Your task to perform on an android device: delete the emails in spam in the gmail app Image 0: 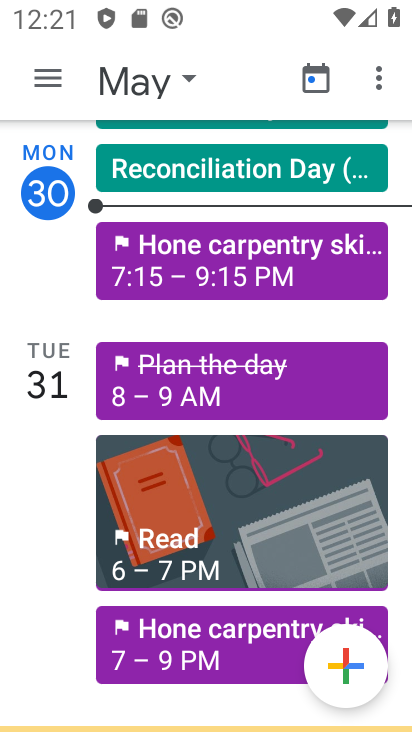
Step 0: press back button
Your task to perform on an android device: delete the emails in spam in the gmail app Image 1: 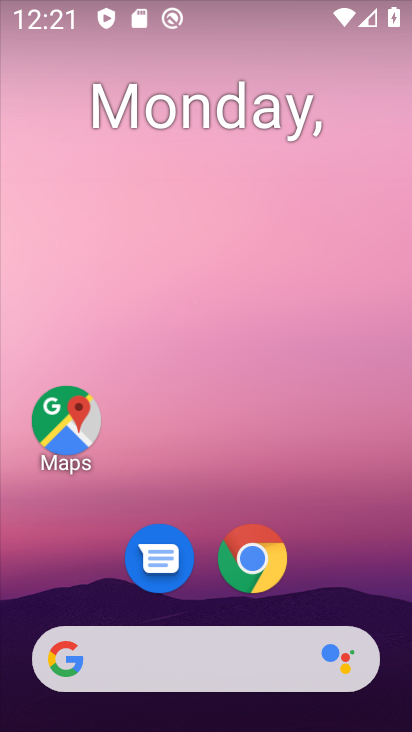
Step 1: drag from (316, 564) to (242, 24)
Your task to perform on an android device: delete the emails in spam in the gmail app Image 2: 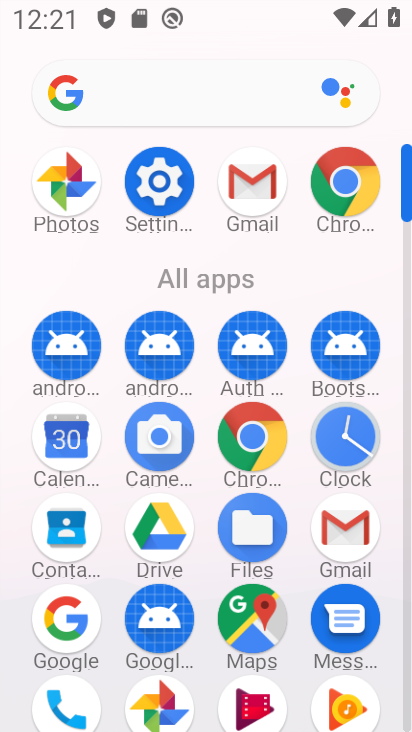
Step 2: drag from (3, 589) to (6, 281)
Your task to perform on an android device: delete the emails in spam in the gmail app Image 3: 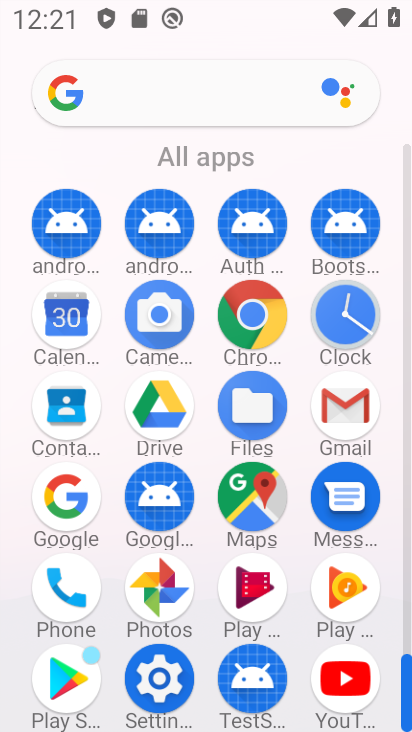
Step 3: click (348, 394)
Your task to perform on an android device: delete the emails in spam in the gmail app Image 4: 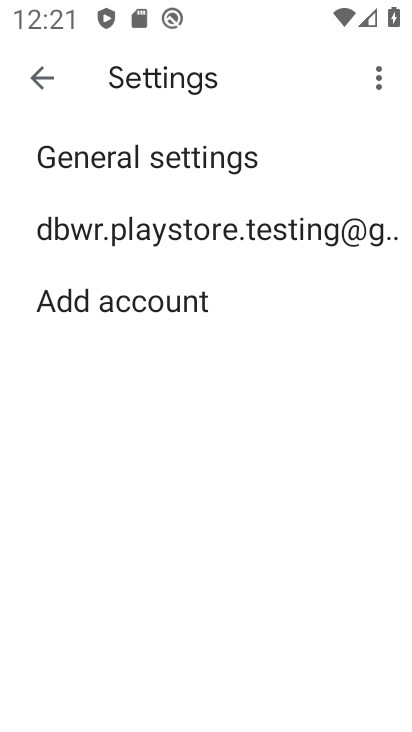
Step 4: click (42, 74)
Your task to perform on an android device: delete the emails in spam in the gmail app Image 5: 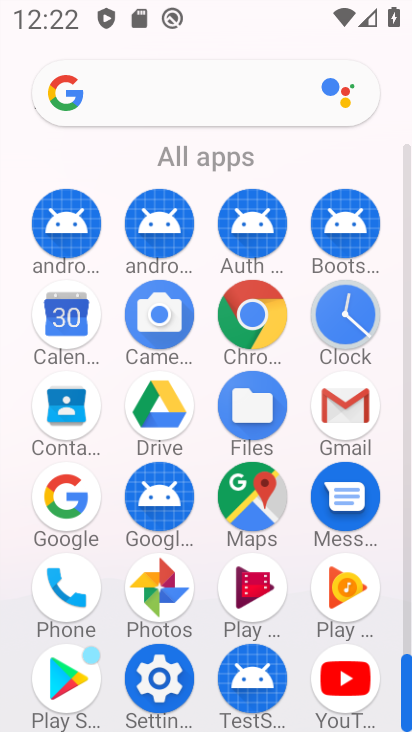
Step 5: click (342, 395)
Your task to perform on an android device: delete the emails in spam in the gmail app Image 6: 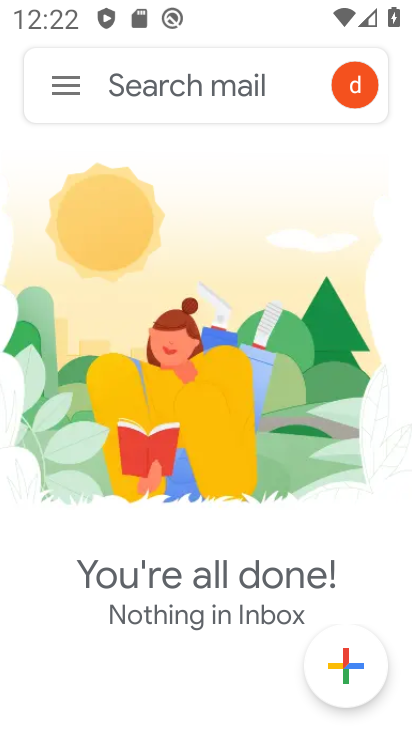
Step 6: click (64, 91)
Your task to perform on an android device: delete the emails in spam in the gmail app Image 7: 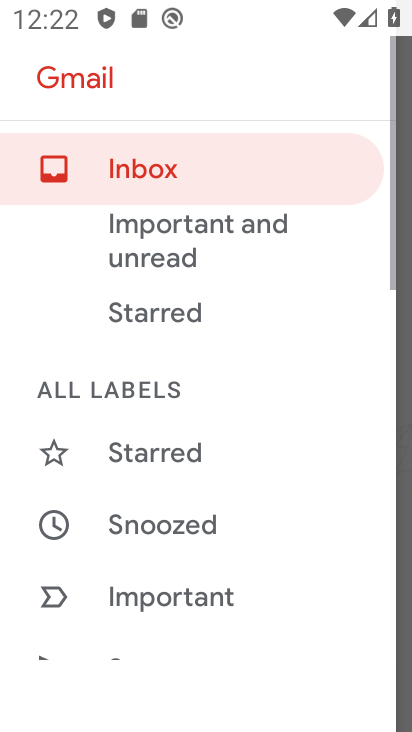
Step 7: drag from (239, 625) to (223, 194)
Your task to perform on an android device: delete the emails in spam in the gmail app Image 8: 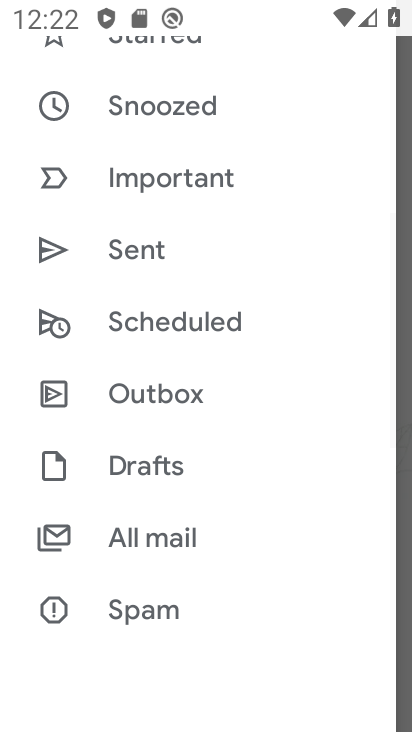
Step 8: drag from (253, 553) to (256, 178)
Your task to perform on an android device: delete the emails in spam in the gmail app Image 9: 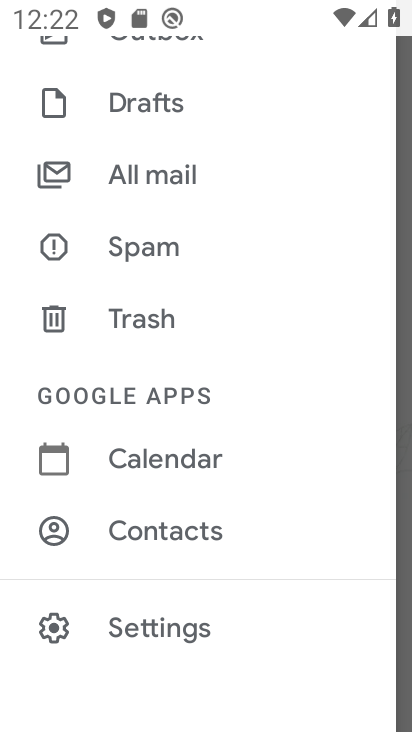
Step 9: click (153, 230)
Your task to perform on an android device: delete the emails in spam in the gmail app Image 10: 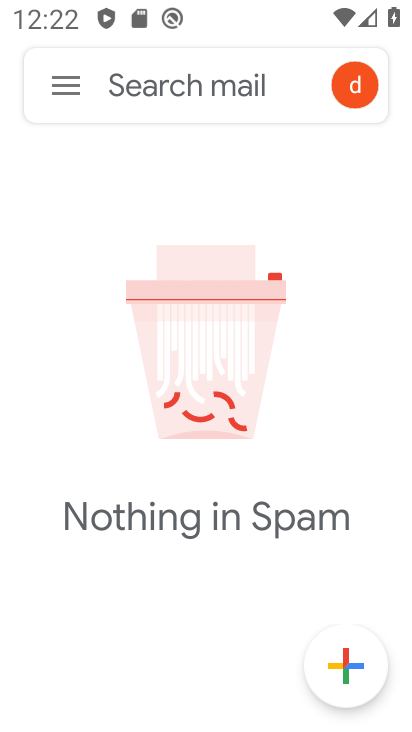
Step 10: task complete